Your task to perform on an android device: Open network settings Image 0: 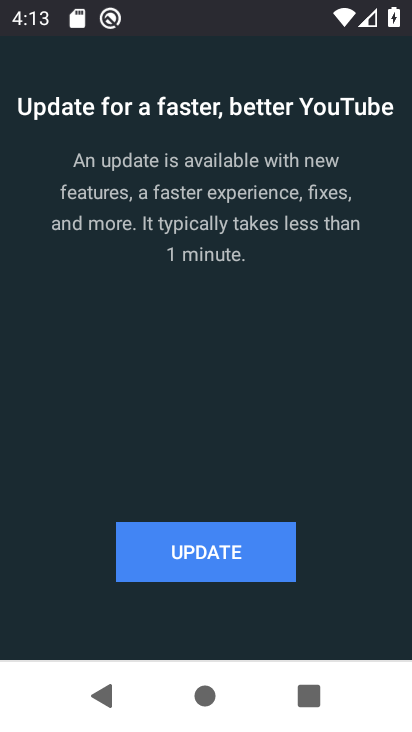
Step 0: press home button
Your task to perform on an android device: Open network settings Image 1: 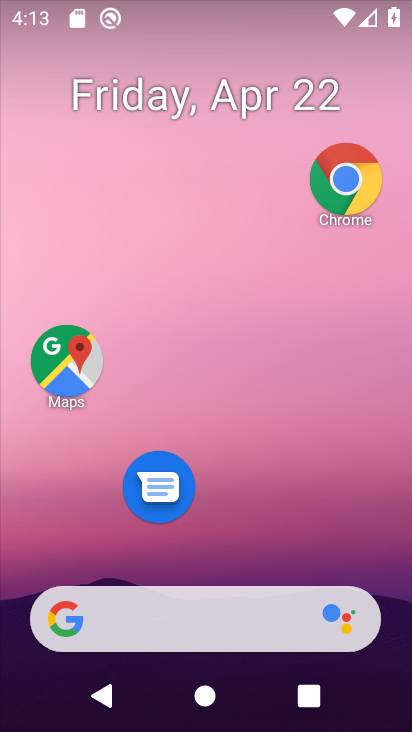
Step 1: drag from (266, 535) to (295, 72)
Your task to perform on an android device: Open network settings Image 2: 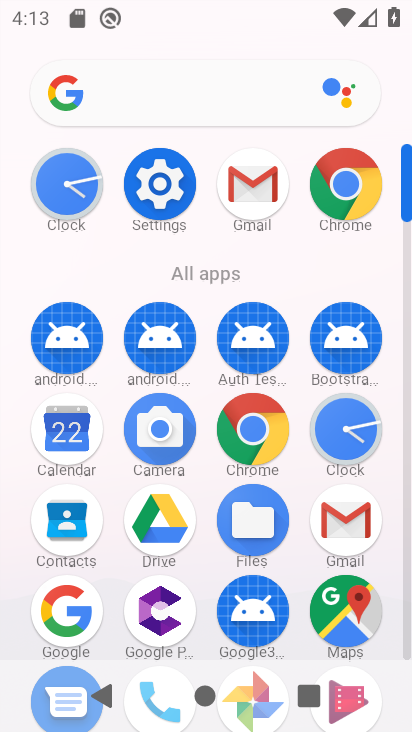
Step 2: click (162, 182)
Your task to perform on an android device: Open network settings Image 3: 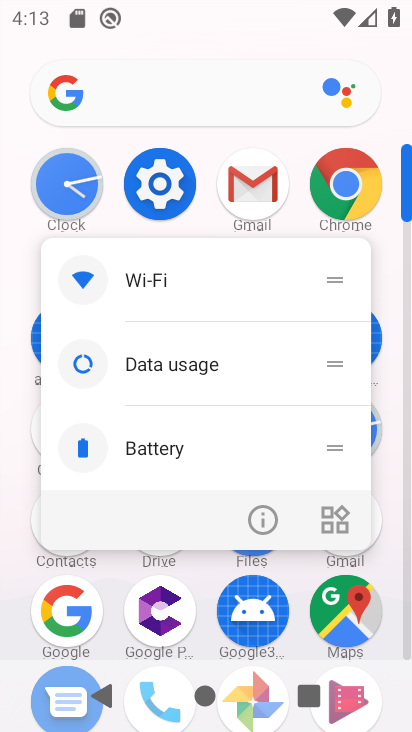
Step 3: click (162, 182)
Your task to perform on an android device: Open network settings Image 4: 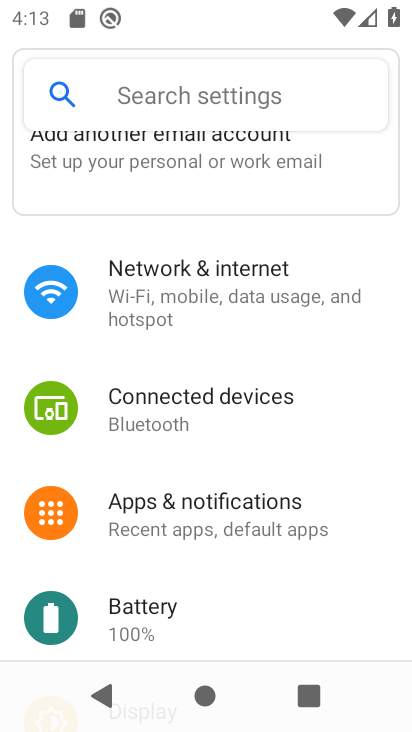
Step 4: click (204, 325)
Your task to perform on an android device: Open network settings Image 5: 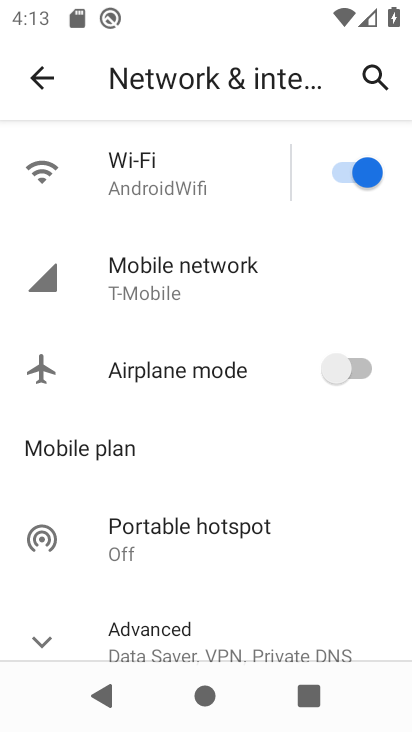
Step 5: click (227, 303)
Your task to perform on an android device: Open network settings Image 6: 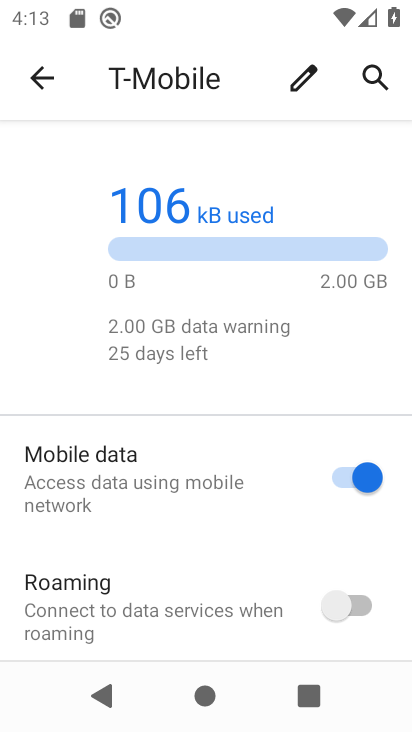
Step 6: task complete